Your task to perform on an android device: Open notification settings Image 0: 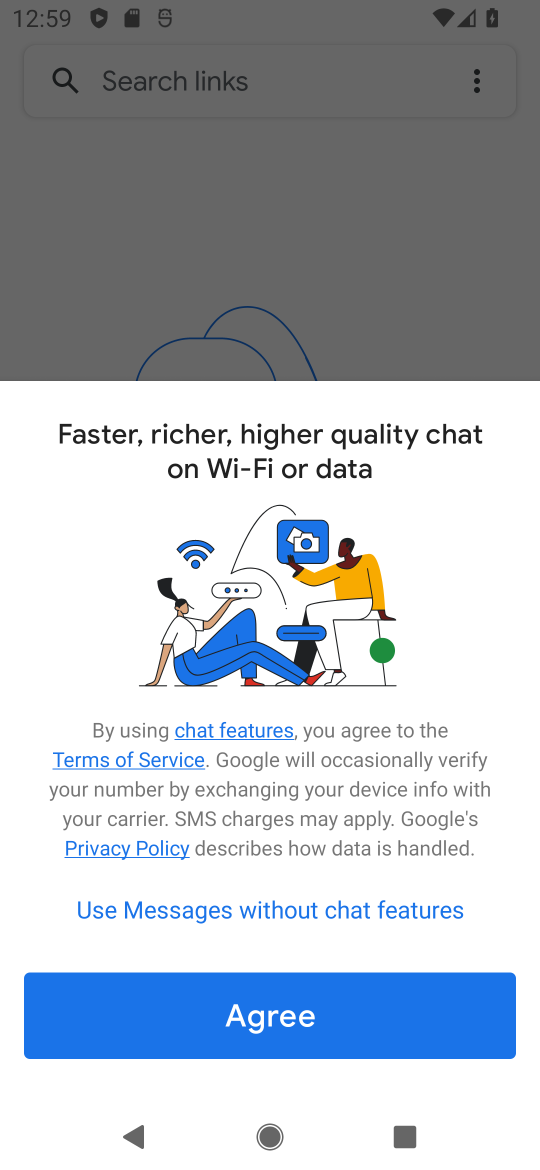
Step 0: press back button
Your task to perform on an android device: Open notification settings Image 1: 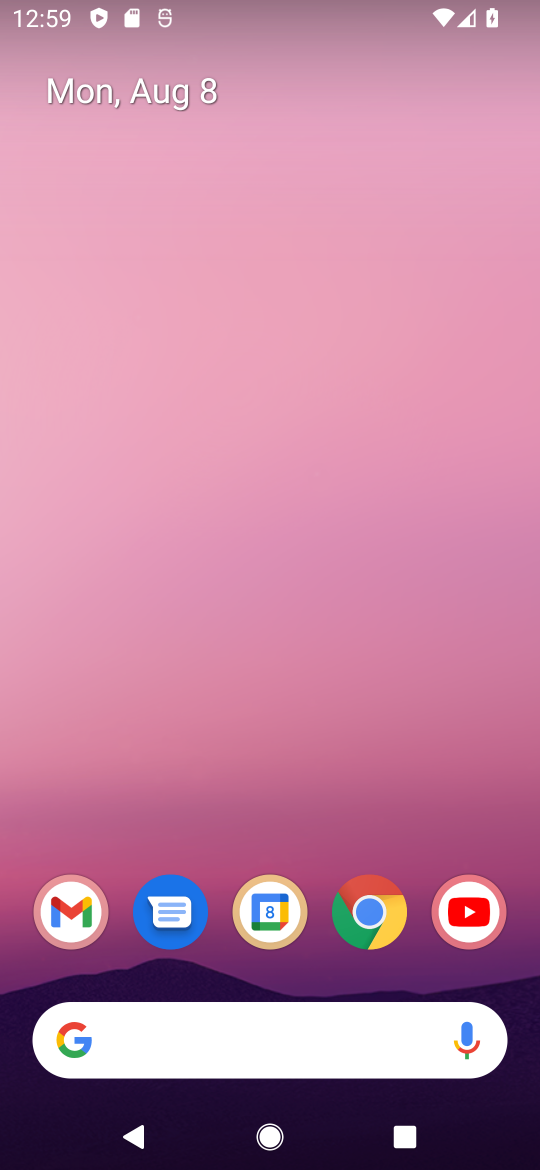
Step 1: drag from (206, 991) to (478, 2)
Your task to perform on an android device: Open notification settings Image 2: 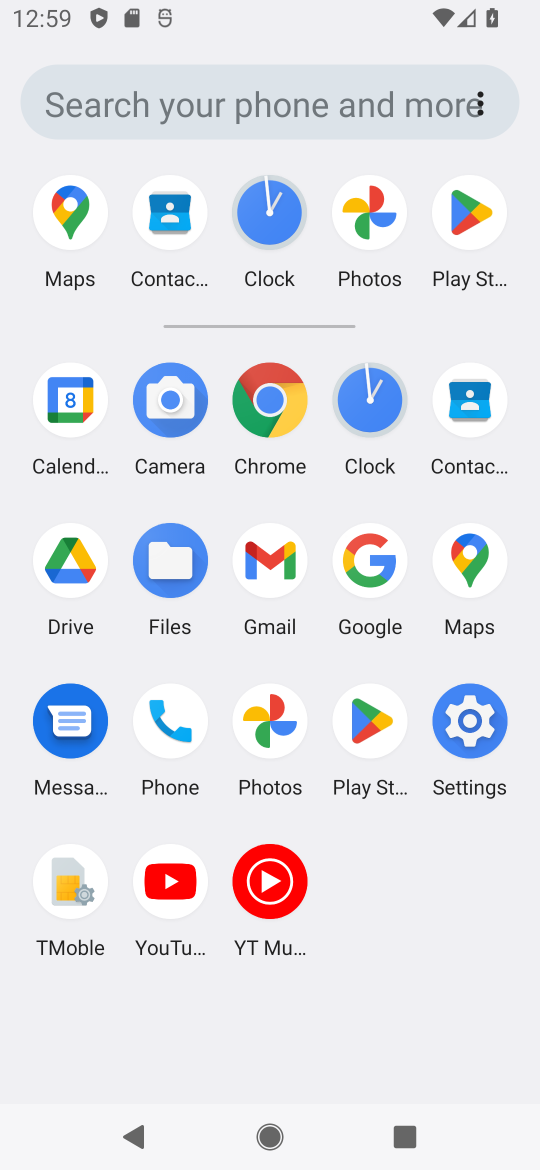
Step 2: click (486, 730)
Your task to perform on an android device: Open notification settings Image 3: 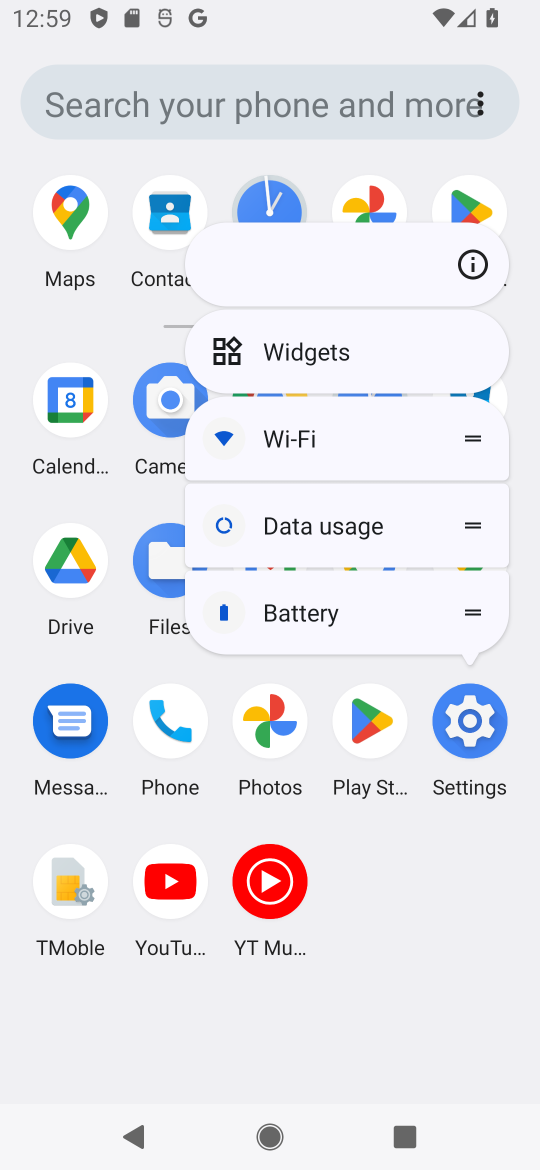
Step 3: click (475, 710)
Your task to perform on an android device: Open notification settings Image 4: 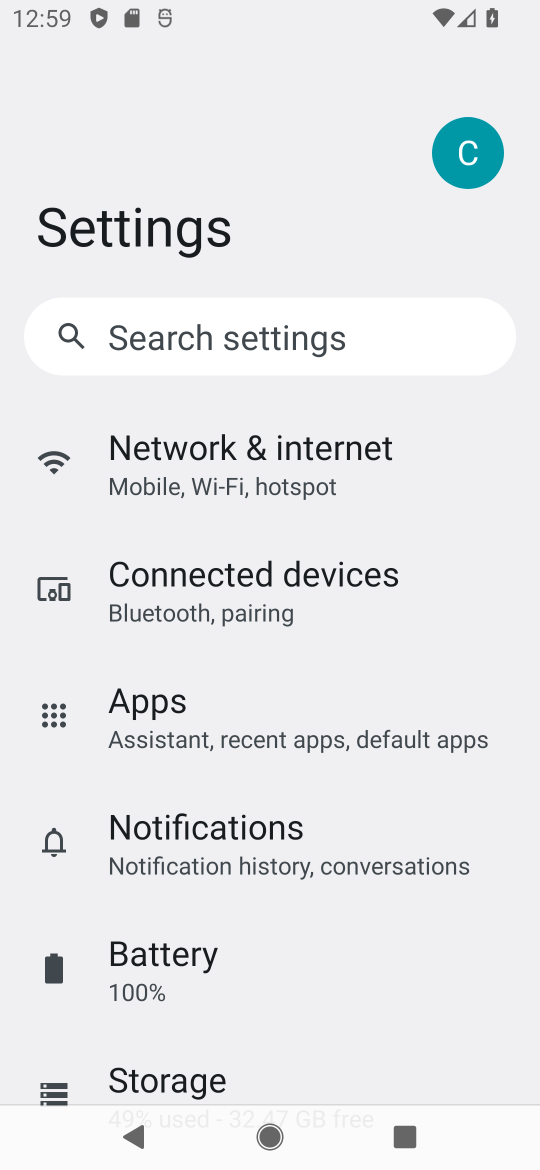
Step 4: click (232, 854)
Your task to perform on an android device: Open notification settings Image 5: 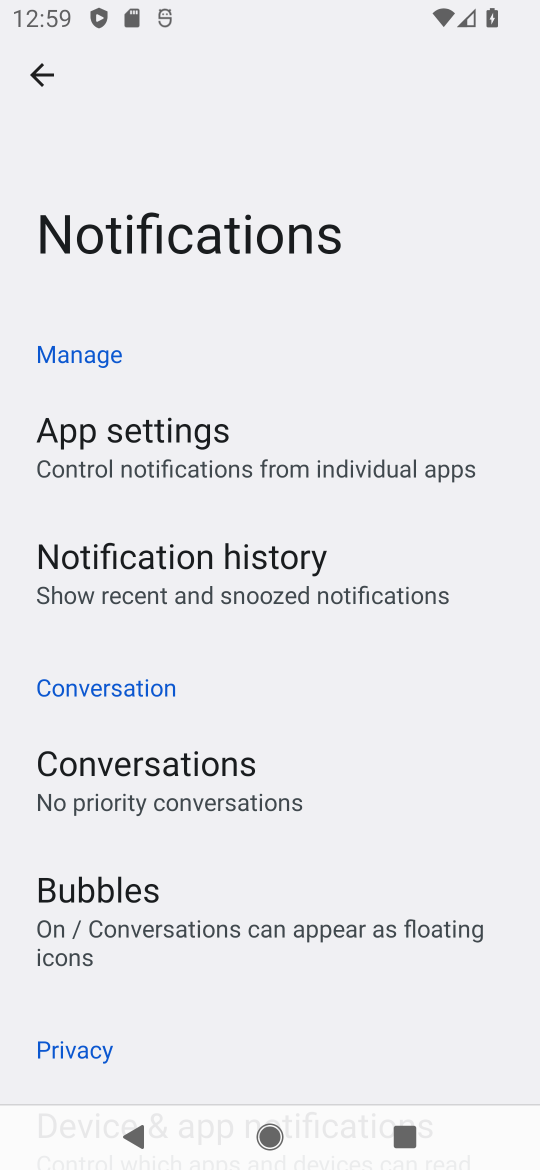
Step 5: task complete